Your task to perform on an android device: Turn off the flashlight Image 0: 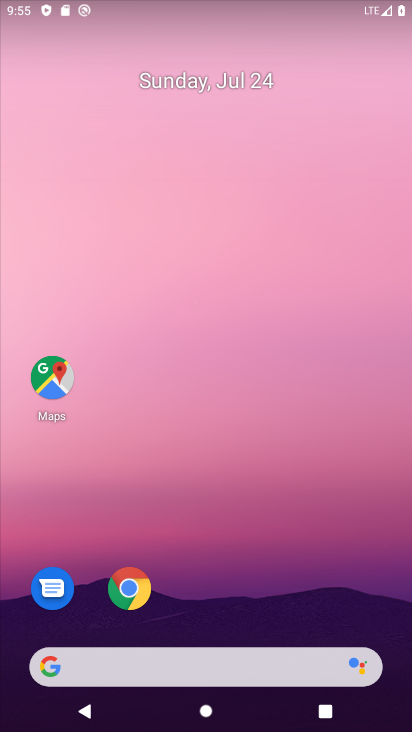
Step 0: drag from (282, 18) to (354, 723)
Your task to perform on an android device: Turn off the flashlight Image 1: 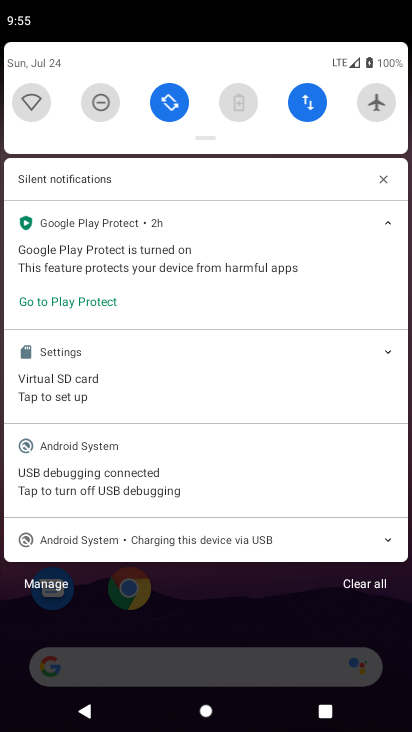
Step 1: drag from (334, 128) to (234, 728)
Your task to perform on an android device: Turn off the flashlight Image 2: 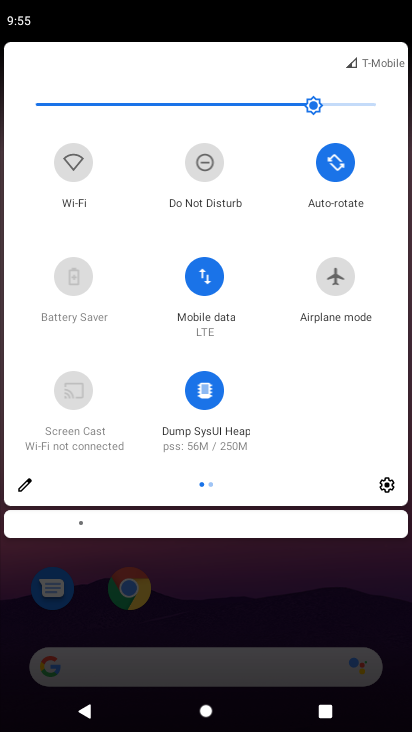
Step 2: click (57, 427)
Your task to perform on an android device: Turn off the flashlight Image 3: 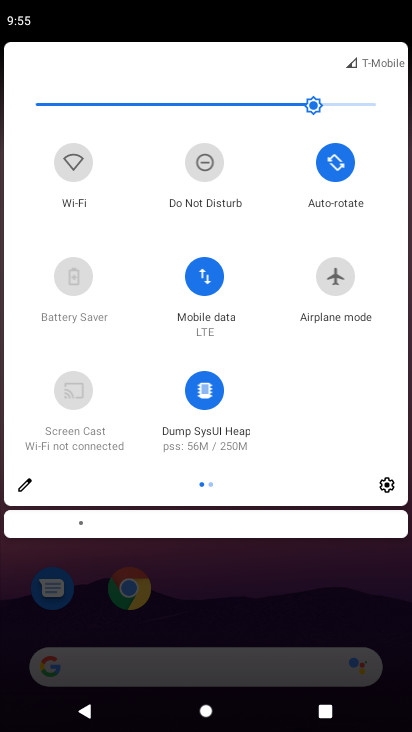
Step 3: task complete